Your task to perform on an android device: Open Google Chrome and open the bookmarks view Image 0: 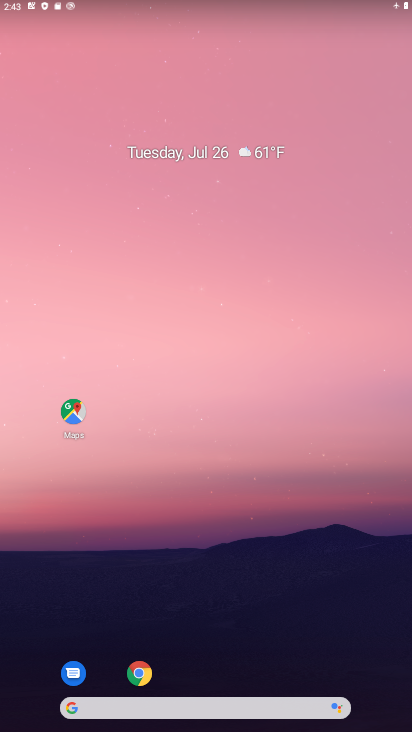
Step 0: drag from (213, 662) to (254, 169)
Your task to perform on an android device: Open Google Chrome and open the bookmarks view Image 1: 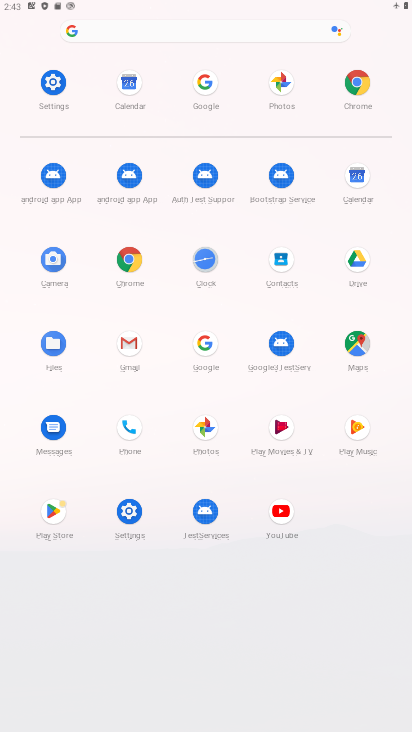
Step 1: click (115, 253)
Your task to perform on an android device: Open Google Chrome and open the bookmarks view Image 2: 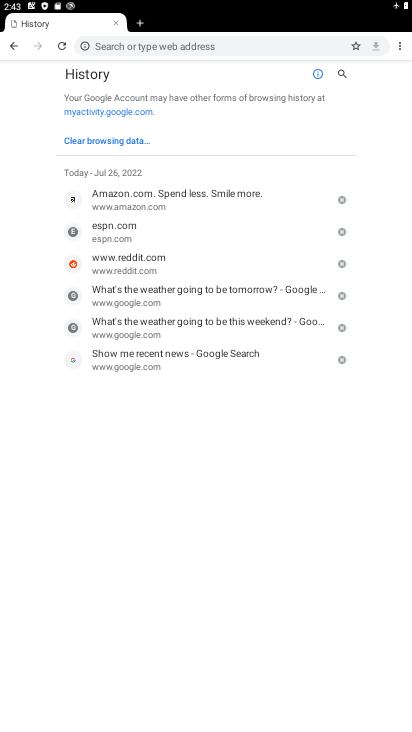
Step 2: drag from (216, 441) to (249, 141)
Your task to perform on an android device: Open Google Chrome and open the bookmarks view Image 3: 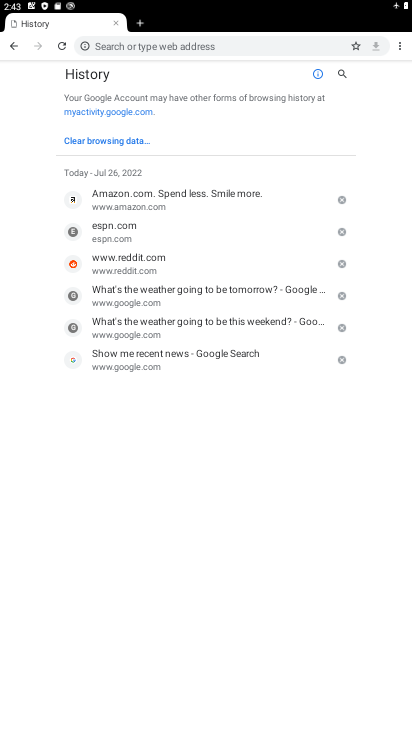
Step 3: drag from (398, 50) to (340, 96)
Your task to perform on an android device: Open Google Chrome and open the bookmarks view Image 4: 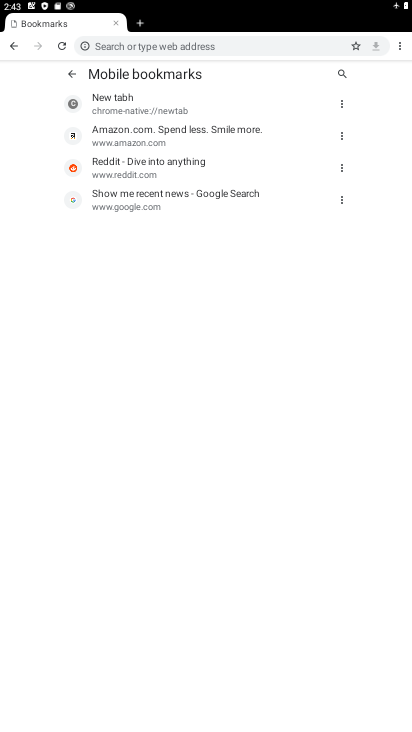
Step 4: click (151, 435)
Your task to perform on an android device: Open Google Chrome and open the bookmarks view Image 5: 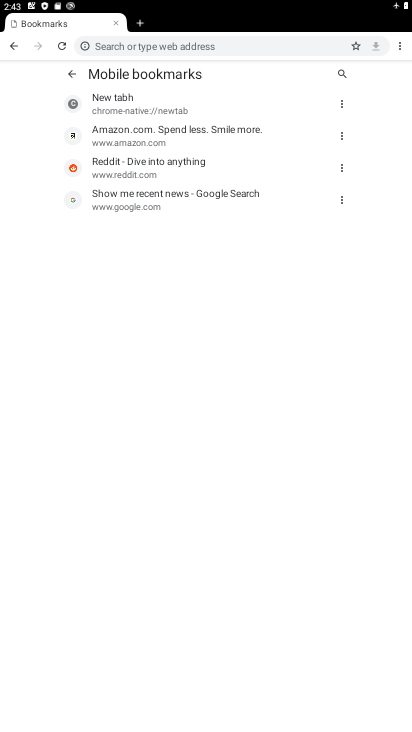
Step 5: task complete